Your task to perform on an android device: toggle location history Image 0: 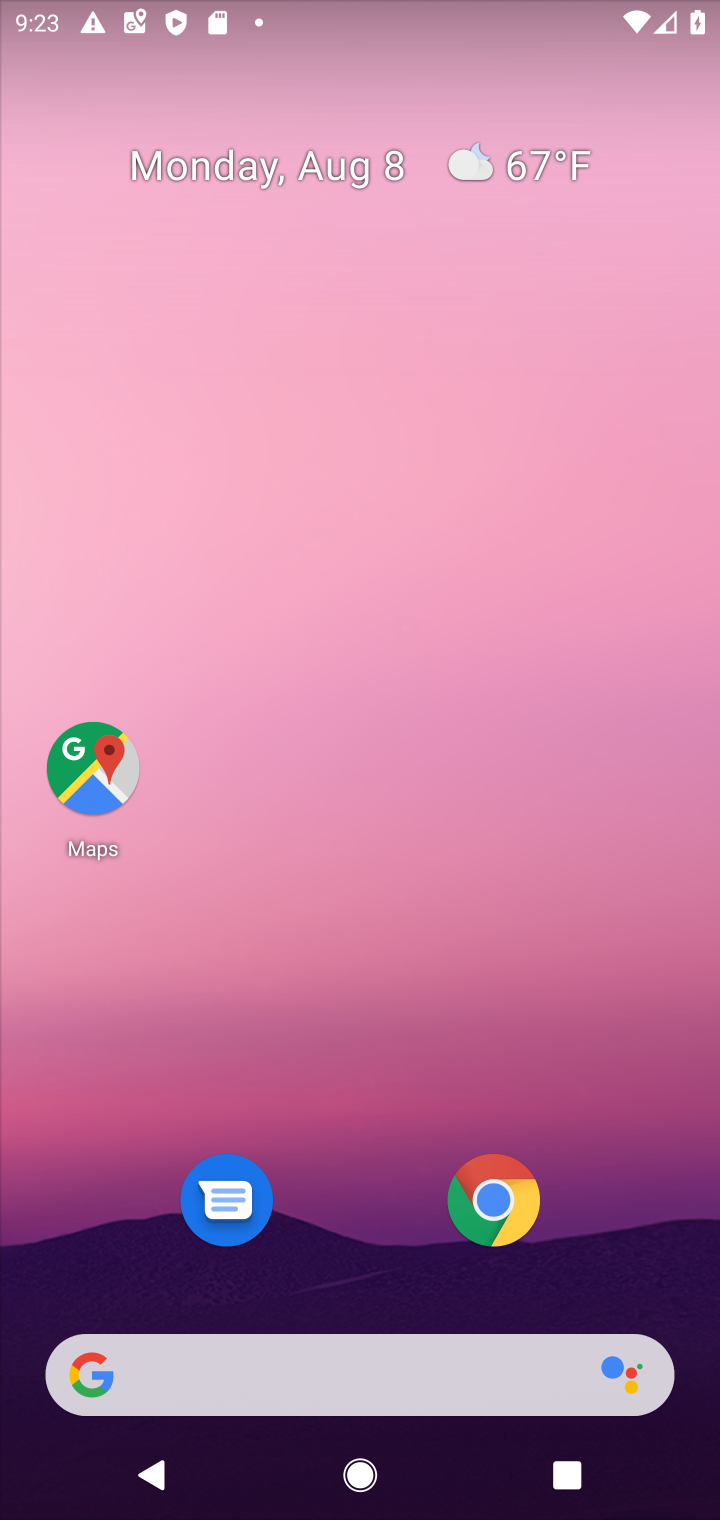
Step 0: click (87, 770)
Your task to perform on an android device: toggle location history Image 1: 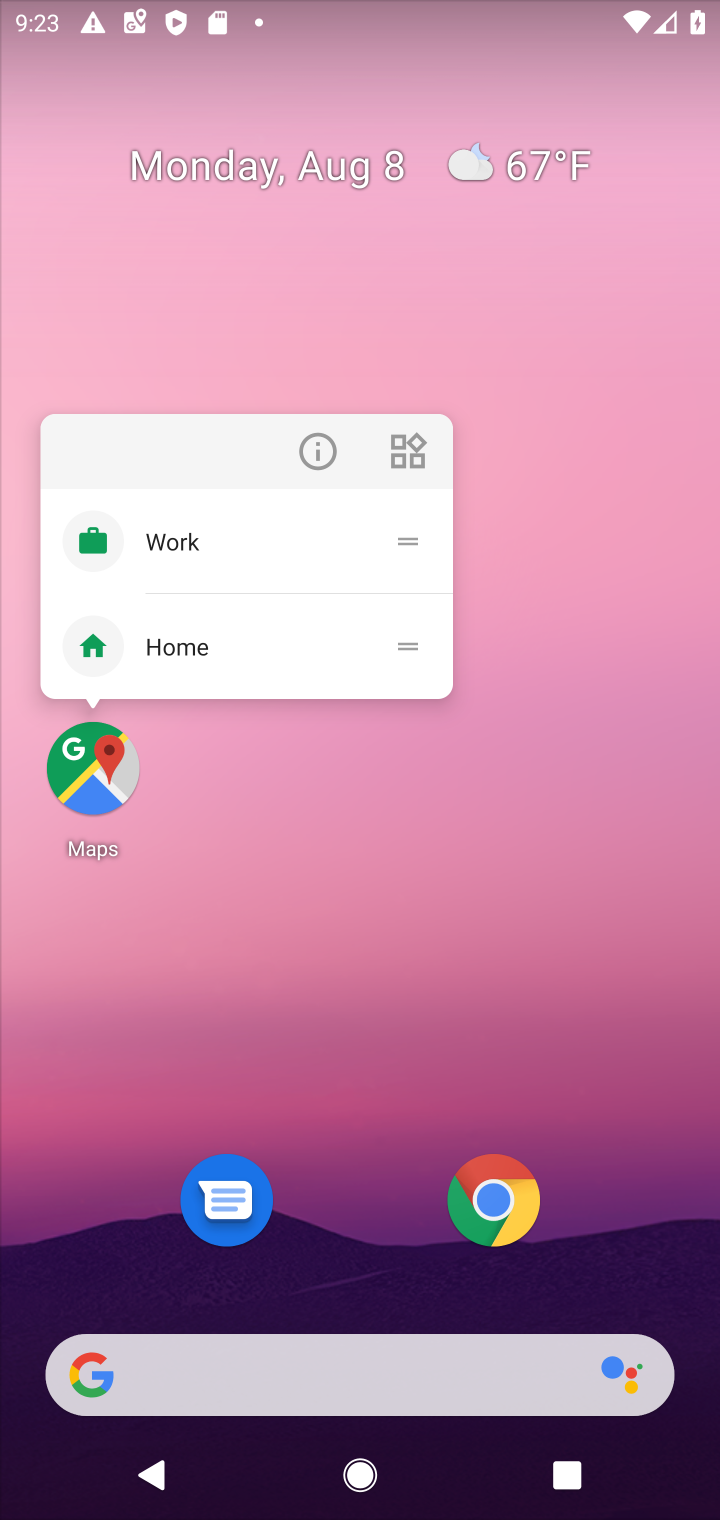
Step 1: click (94, 772)
Your task to perform on an android device: toggle location history Image 2: 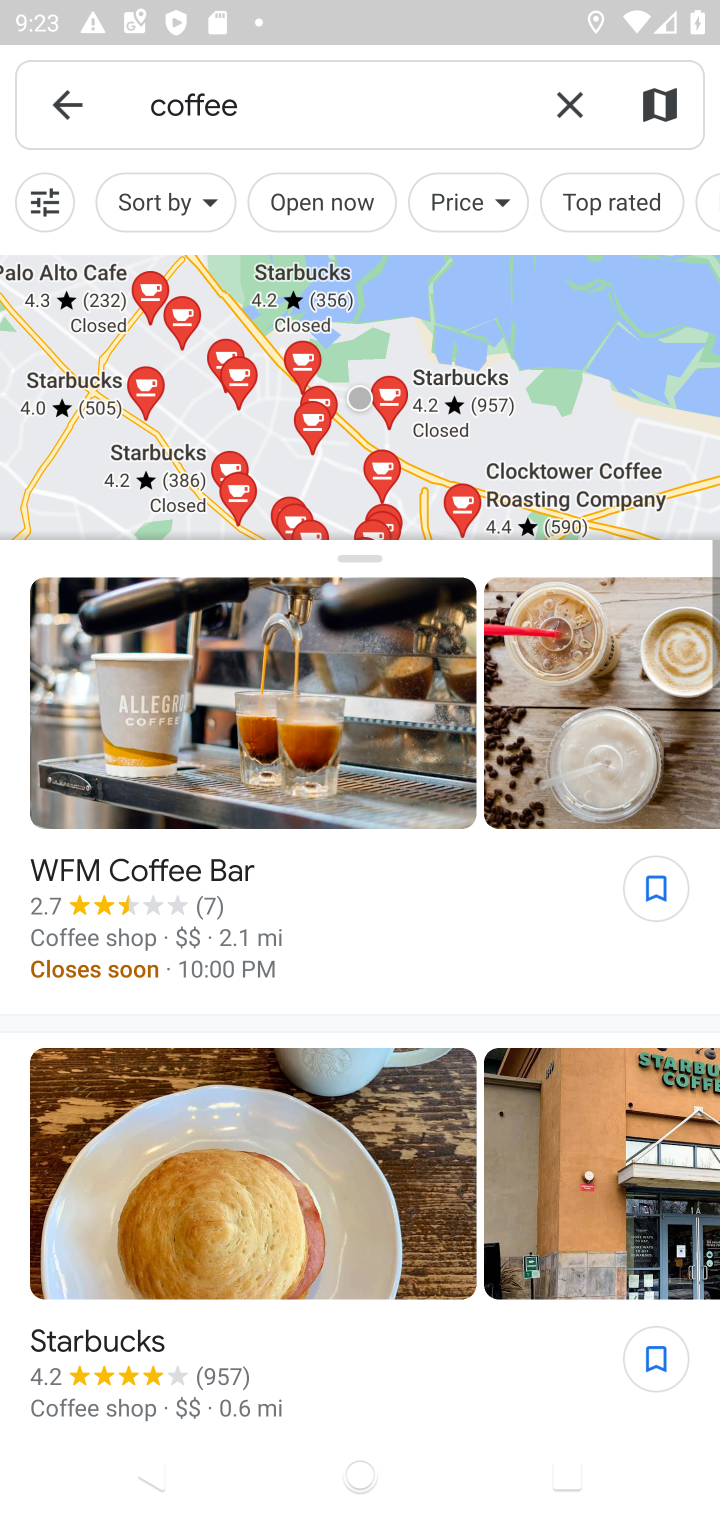
Step 2: click (57, 100)
Your task to perform on an android device: toggle location history Image 3: 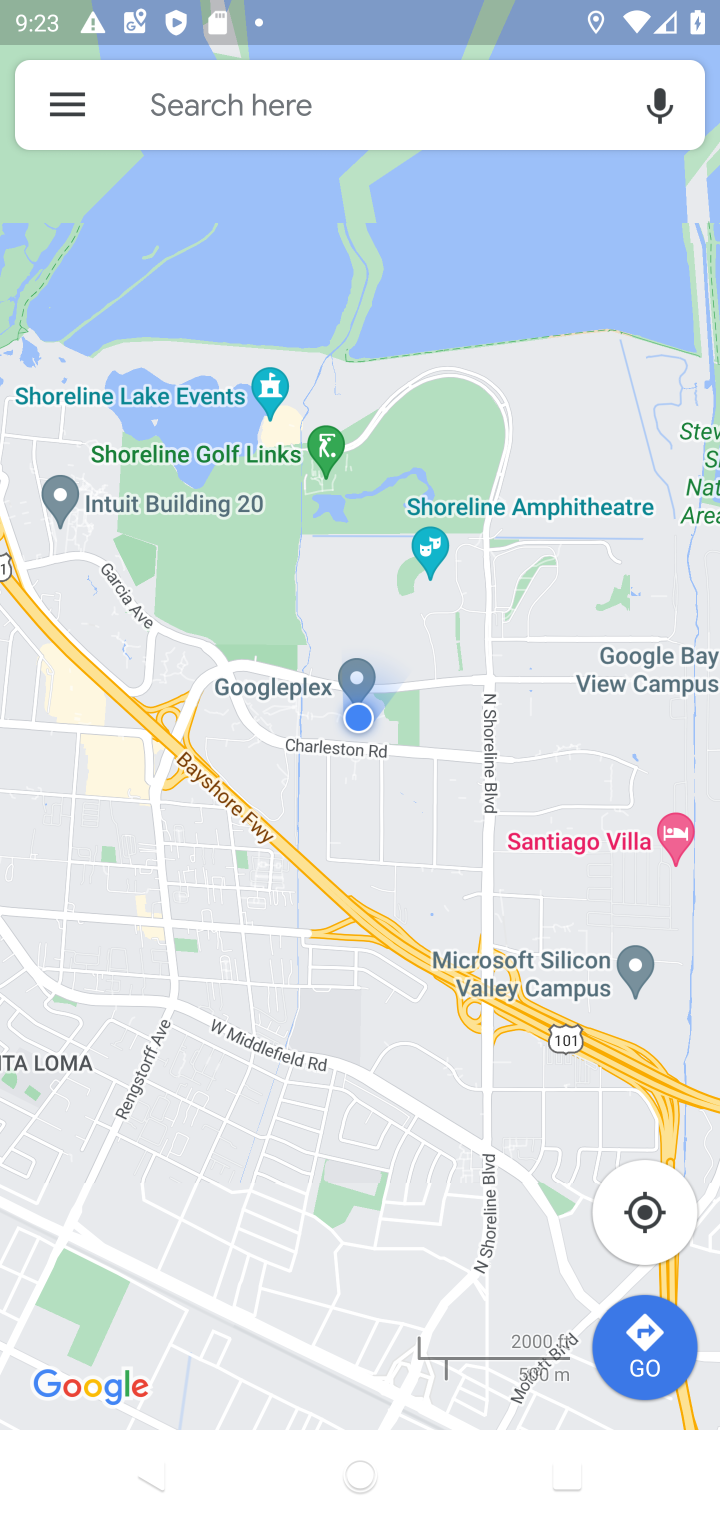
Step 3: click (64, 102)
Your task to perform on an android device: toggle location history Image 4: 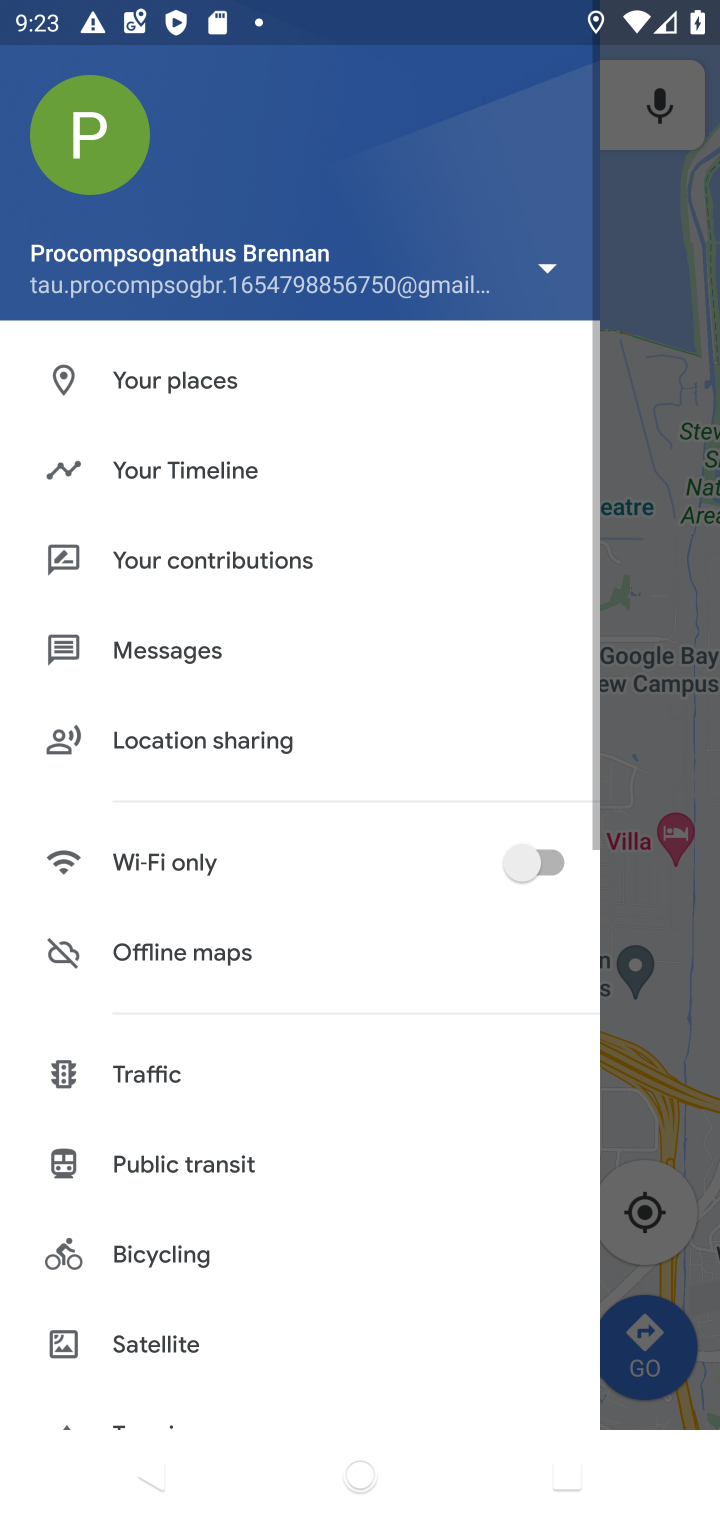
Step 4: click (217, 472)
Your task to perform on an android device: toggle location history Image 5: 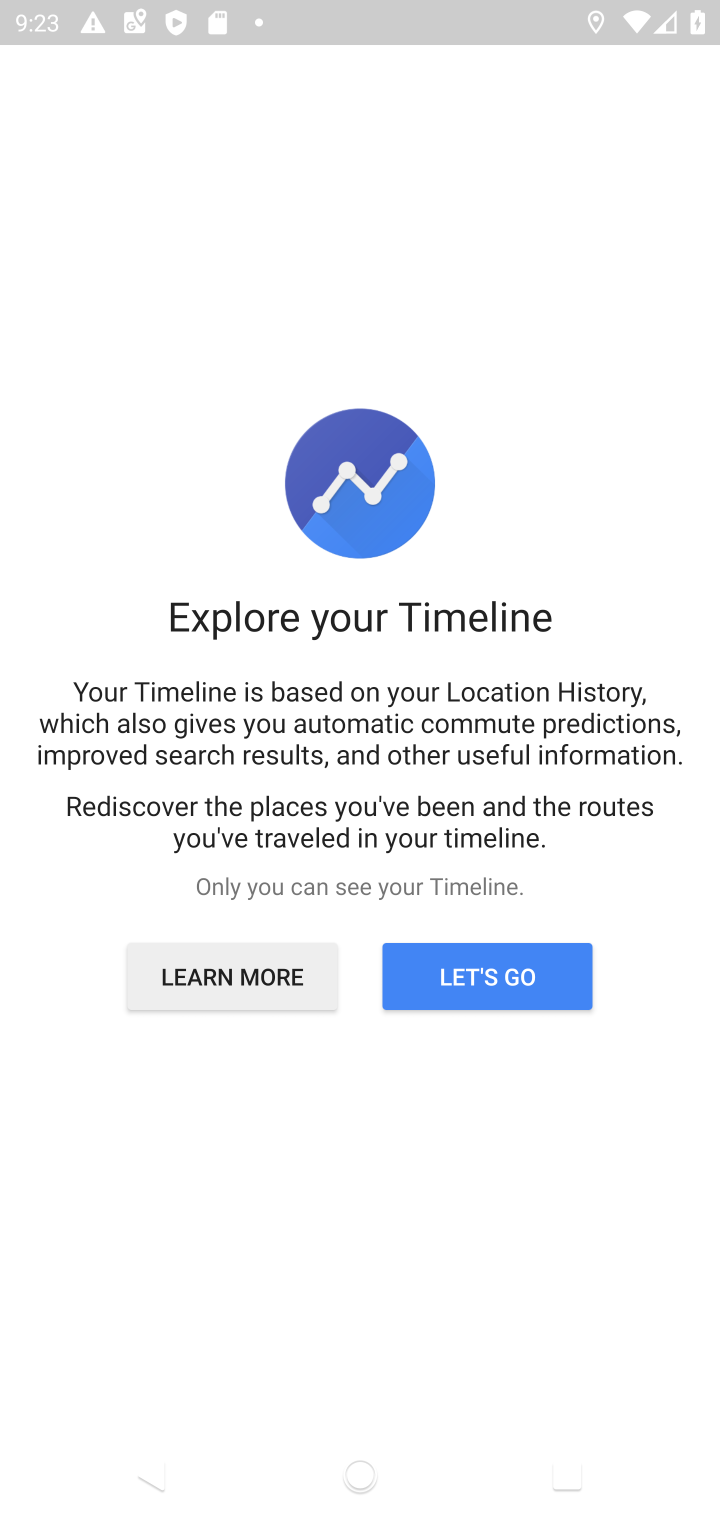
Step 5: click (462, 957)
Your task to perform on an android device: toggle location history Image 6: 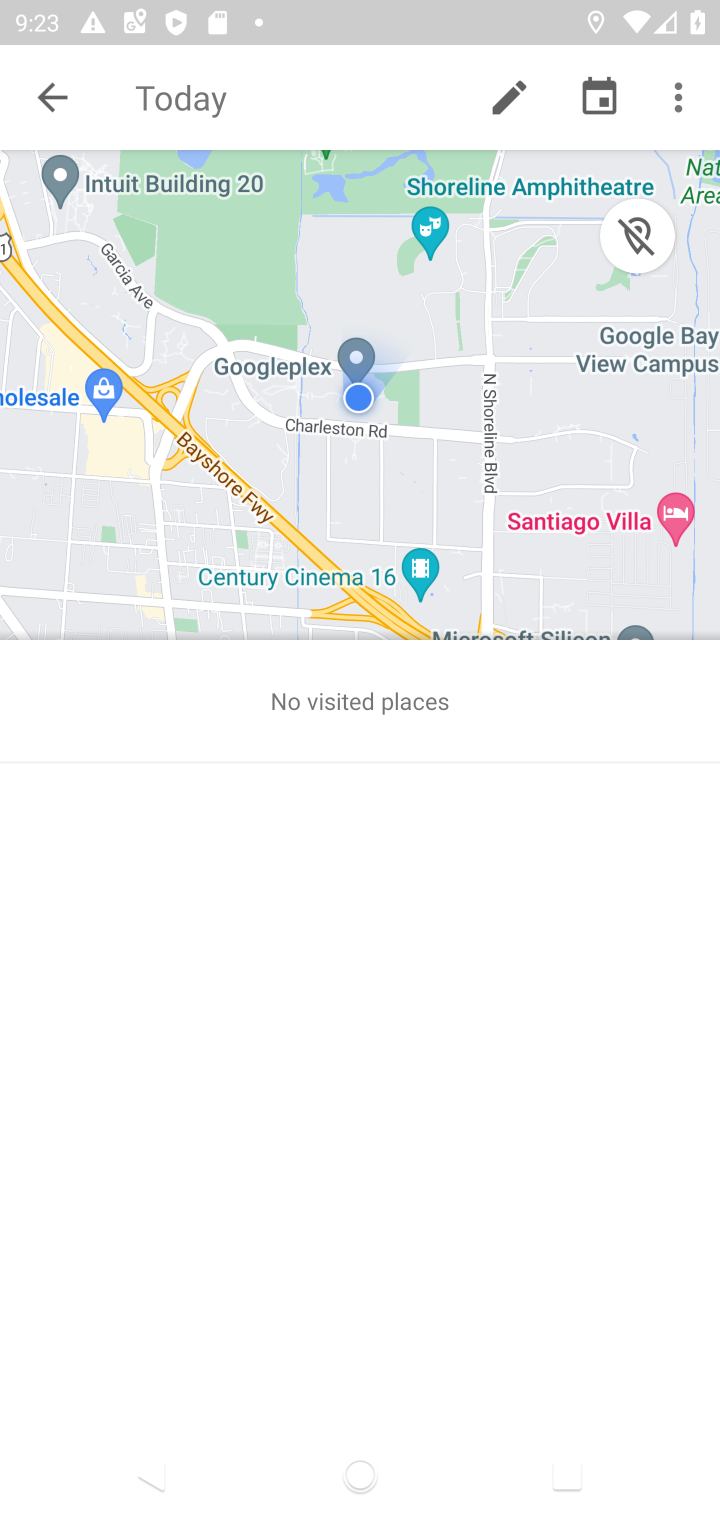
Step 6: click (674, 110)
Your task to perform on an android device: toggle location history Image 7: 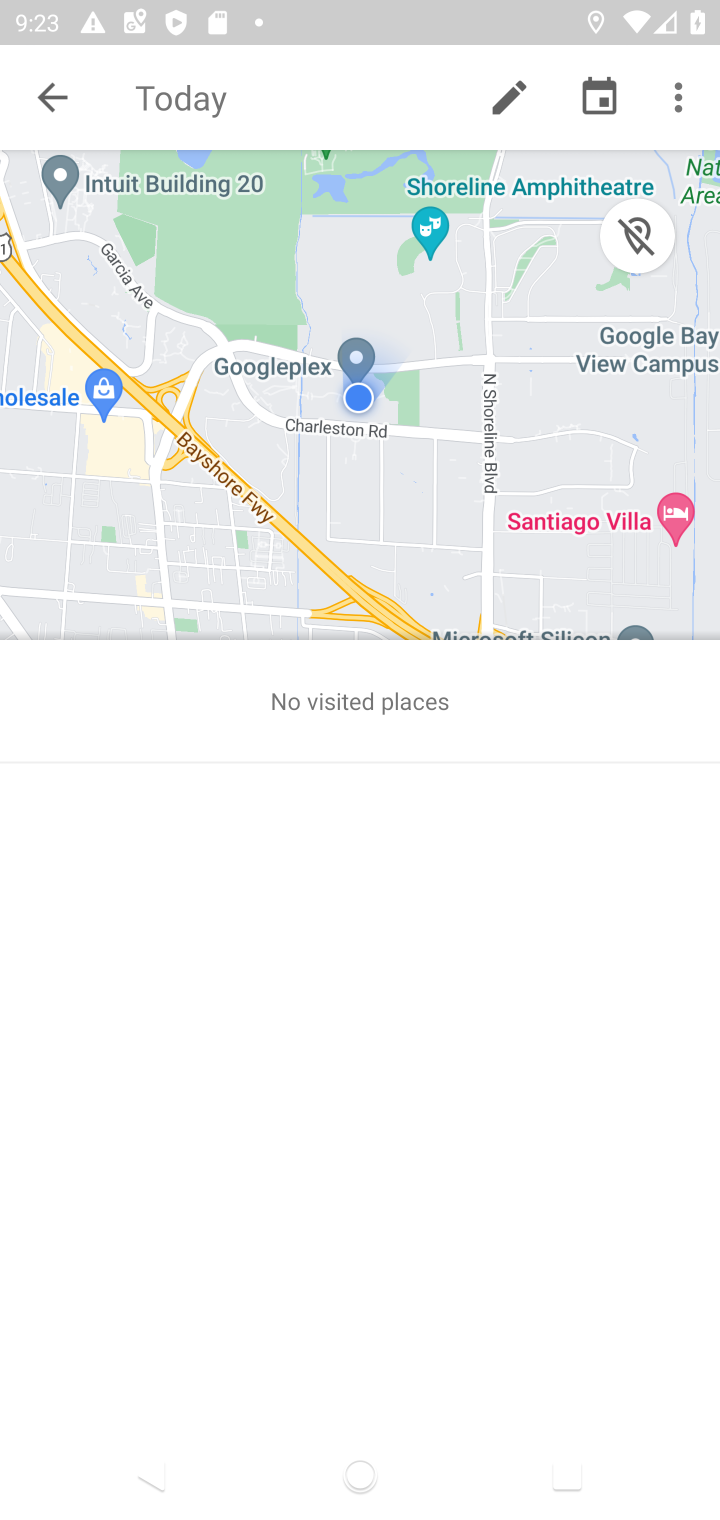
Step 7: click (676, 98)
Your task to perform on an android device: toggle location history Image 8: 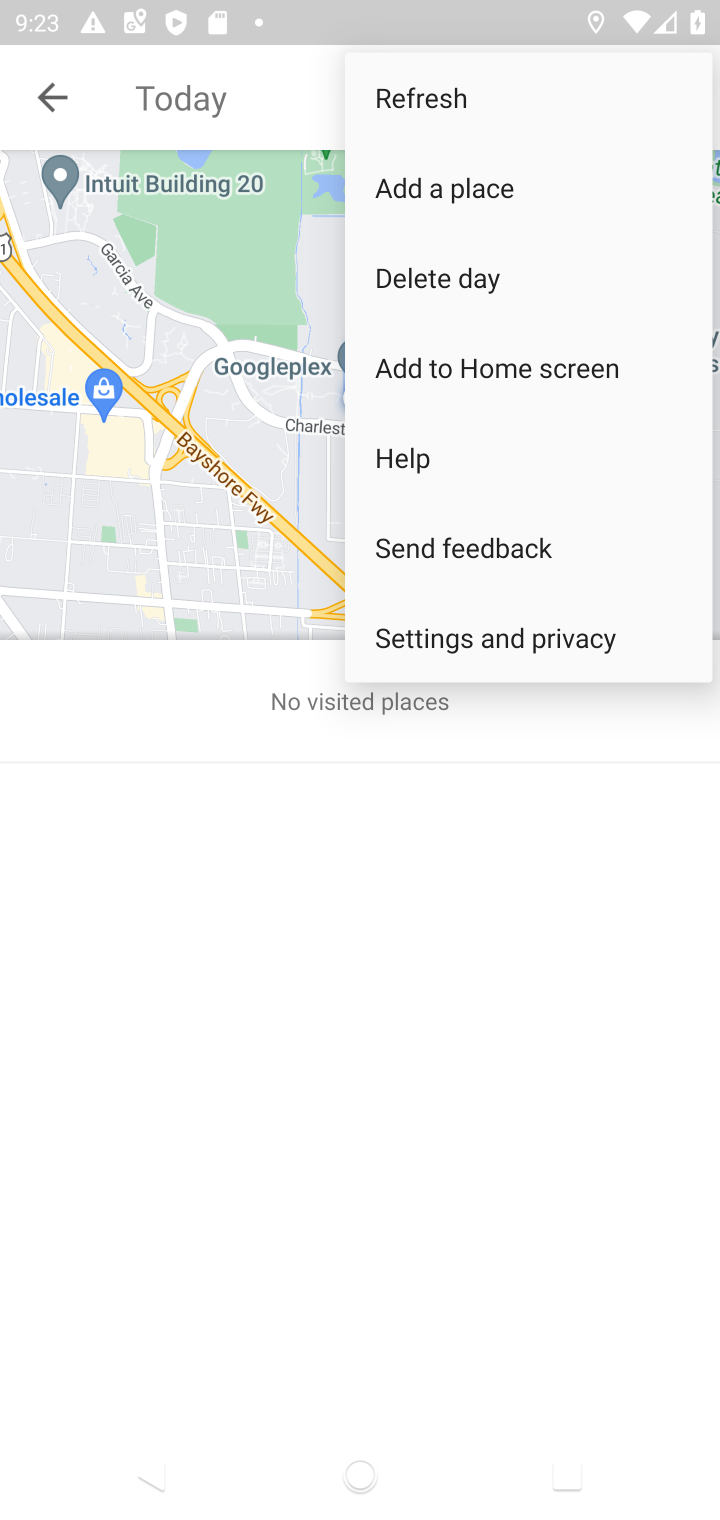
Step 8: click (486, 637)
Your task to perform on an android device: toggle location history Image 9: 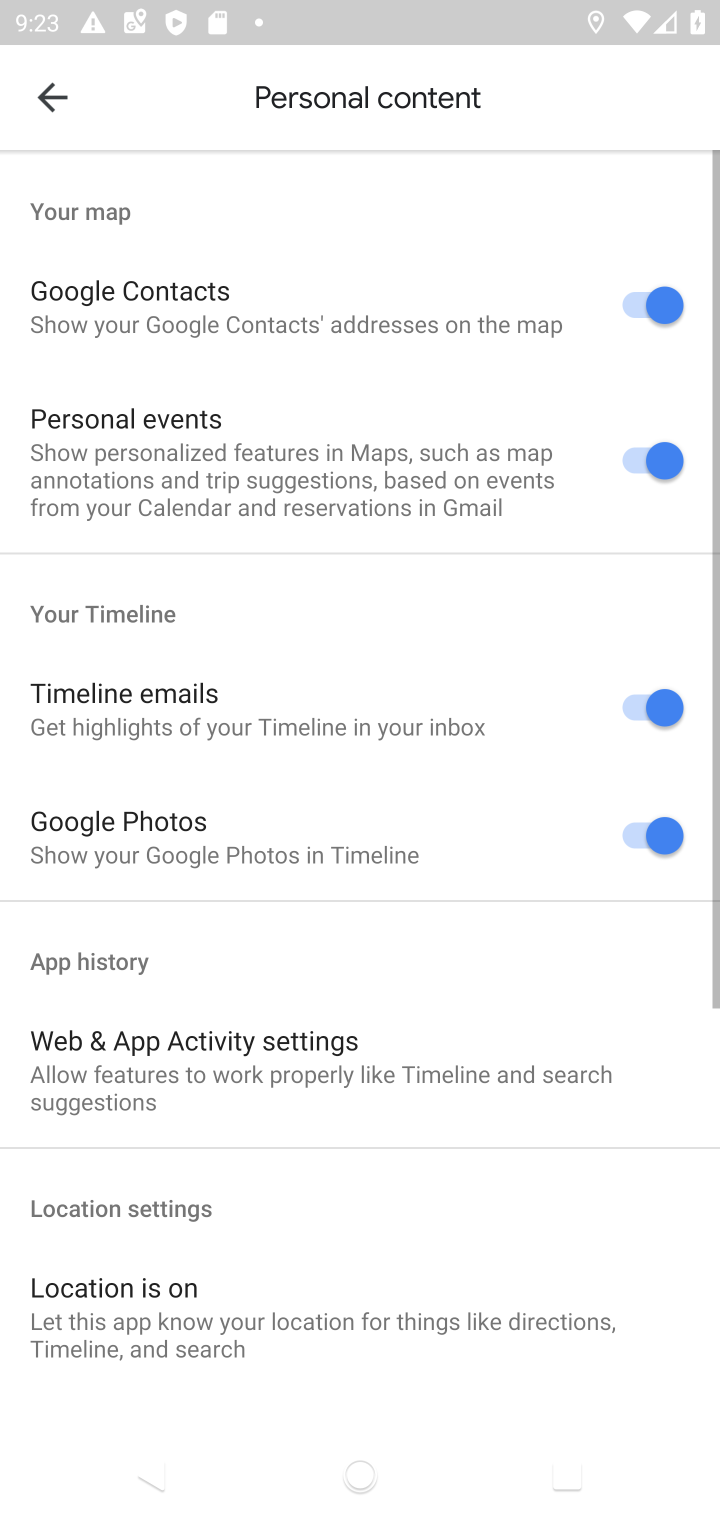
Step 9: drag from (398, 1275) to (586, 127)
Your task to perform on an android device: toggle location history Image 10: 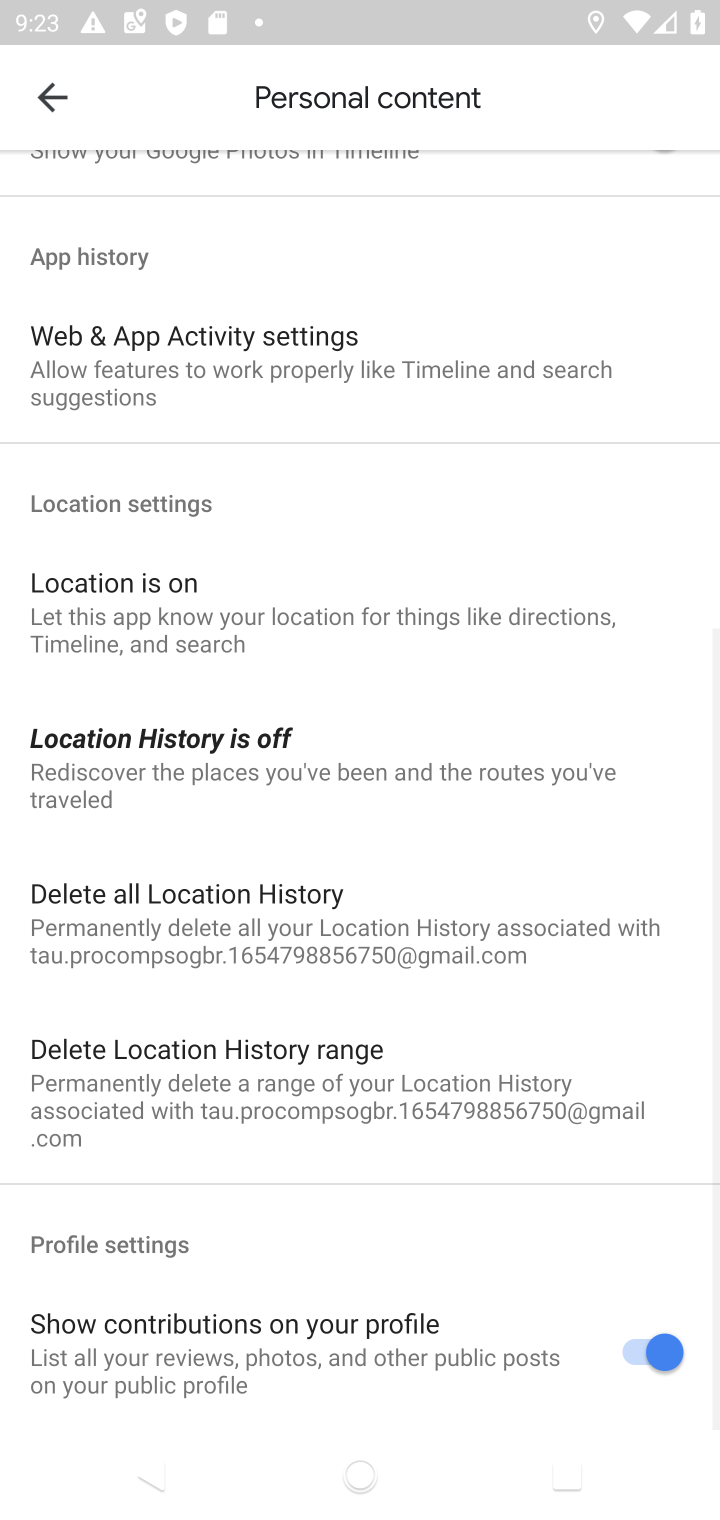
Step 10: drag from (328, 1245) to (478, 228)
Your task to perform on an android device: toggle location history Image 11: 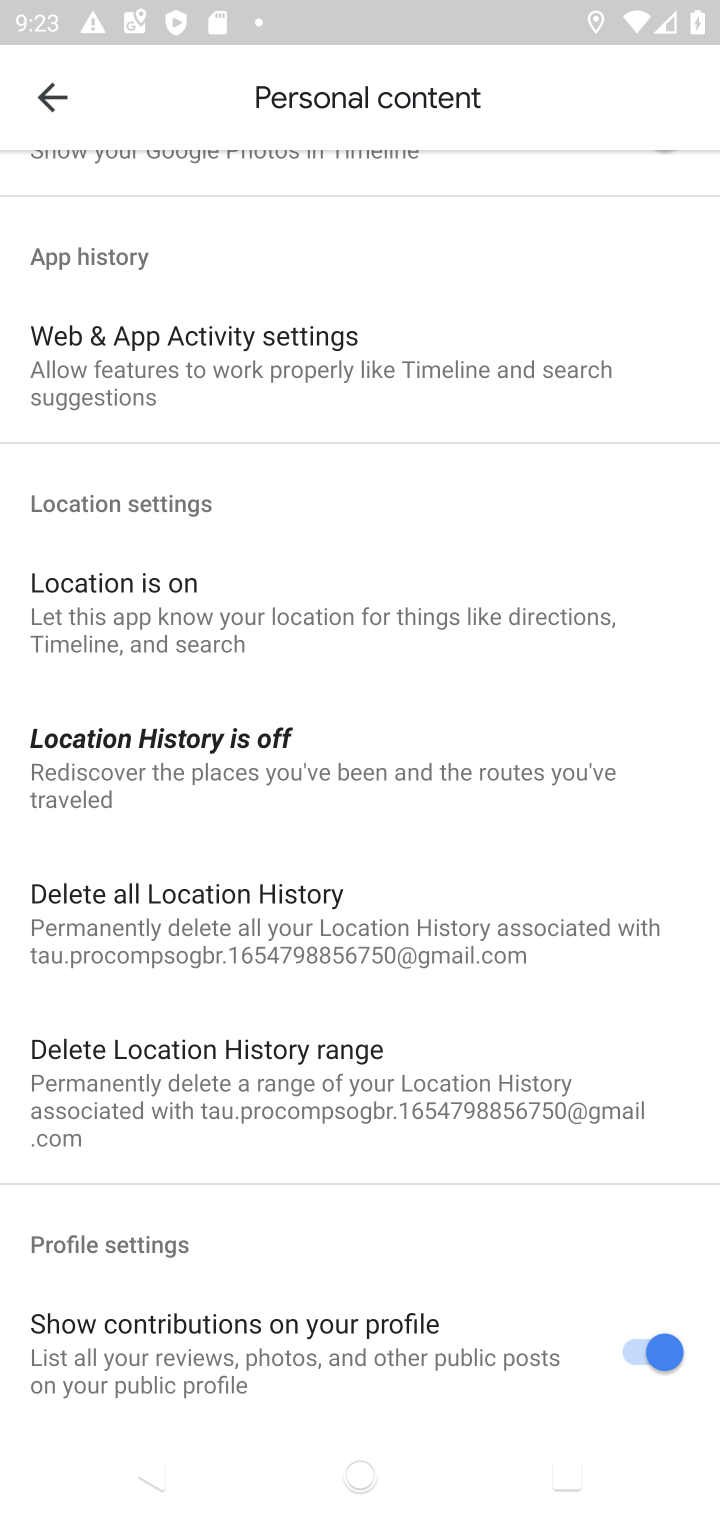
Step 11: drag from (525, 504) to (537, 1211)
Your task to perform on an android device: toggle location history Image 12: 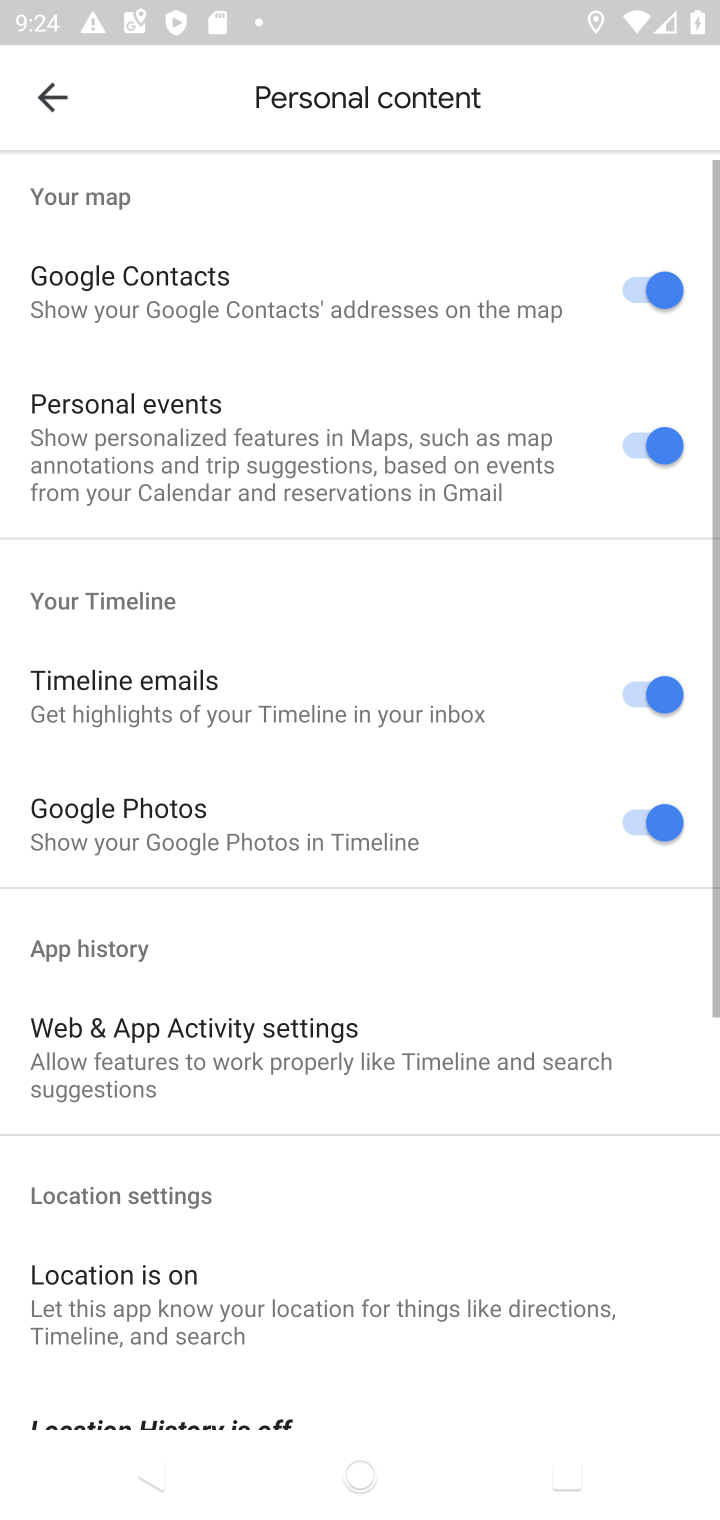
Step 12: drag from (526, 1180) to (549, 525)
Your task to perform on an android device: toggle location history Image 13: 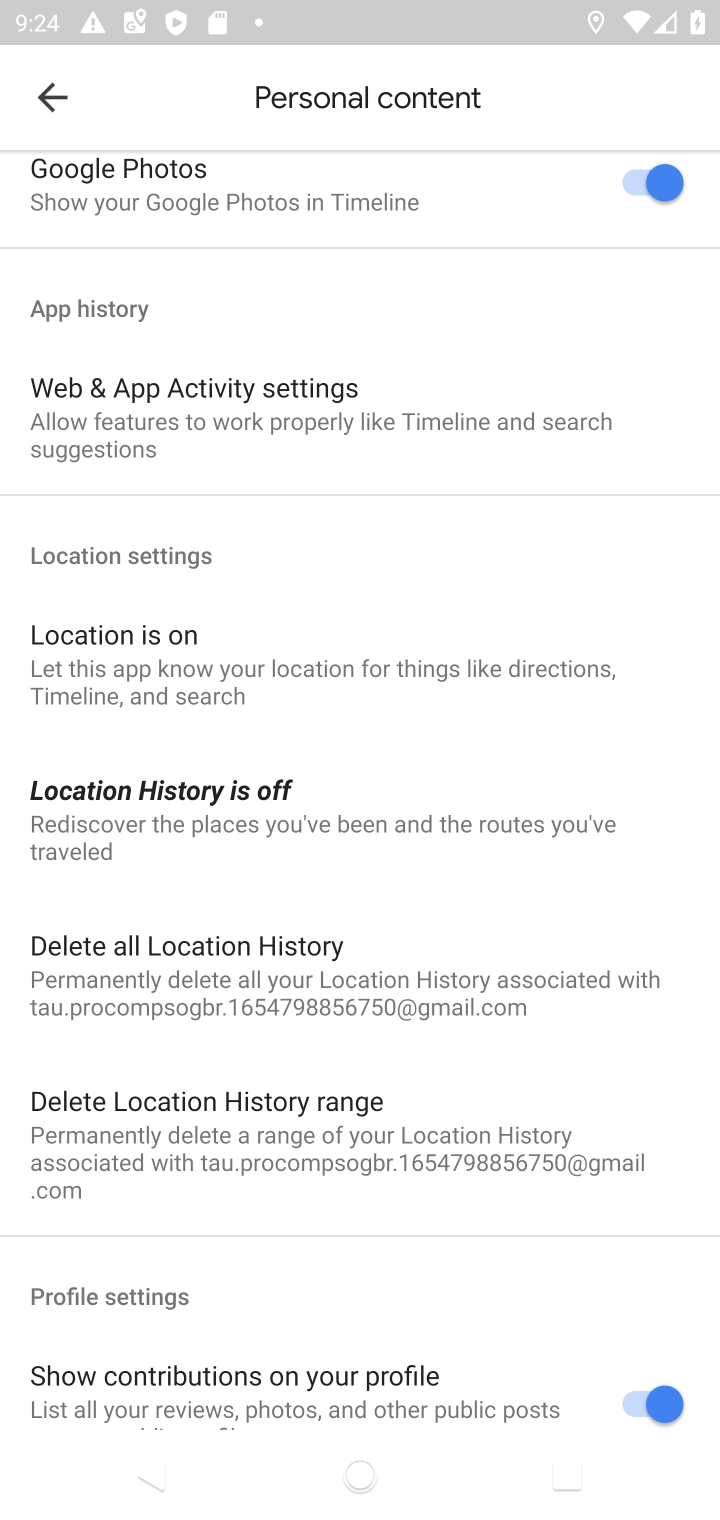
Step 13: click (273, 818)
Your task to perform on an android device: toggle location history Image 14: 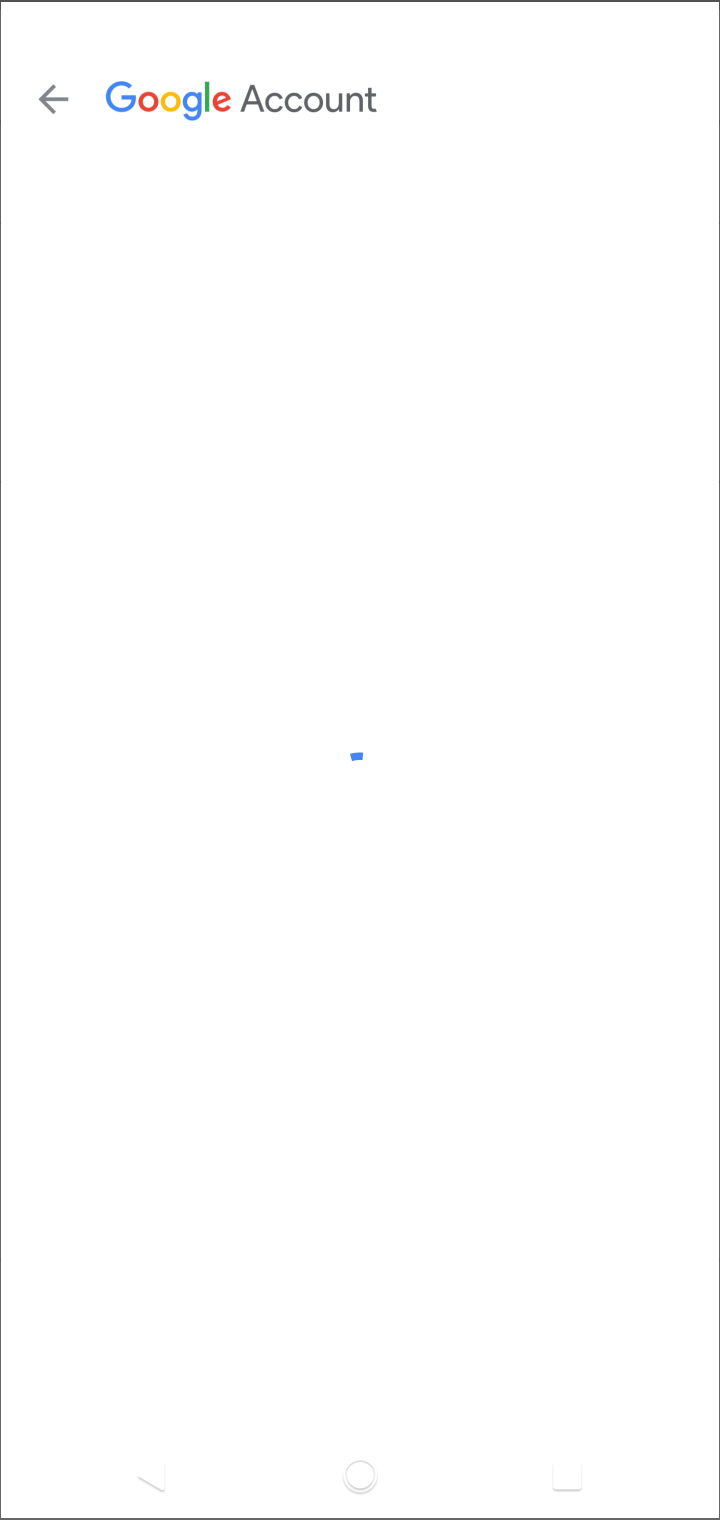
Step 14: click (222, 803)
Your task to perform on an android device: toggle location history Image 15: 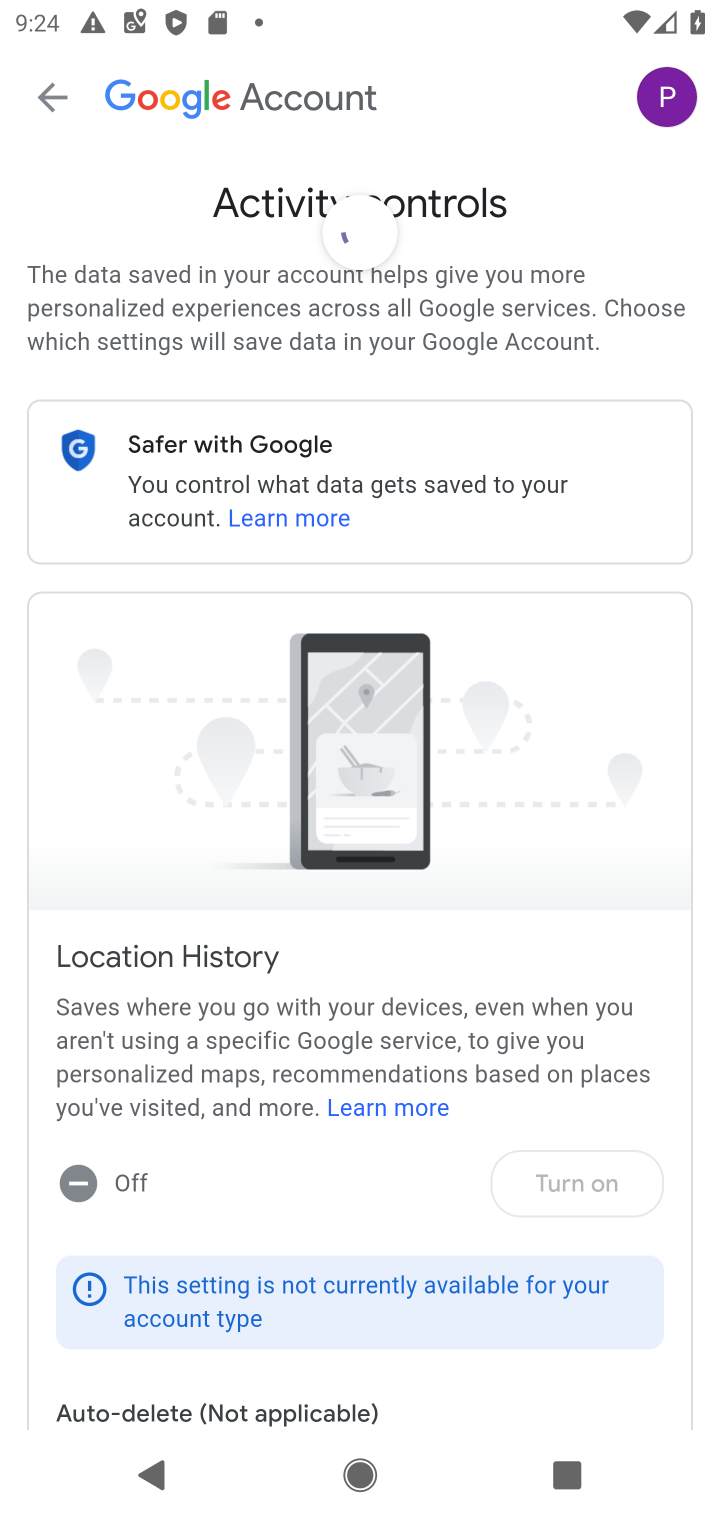
Step 15: task complete